Your task to perform on an android device: Search for sony triple a on target, select the first entry, add it to the cart, then select checkout. Image 0: 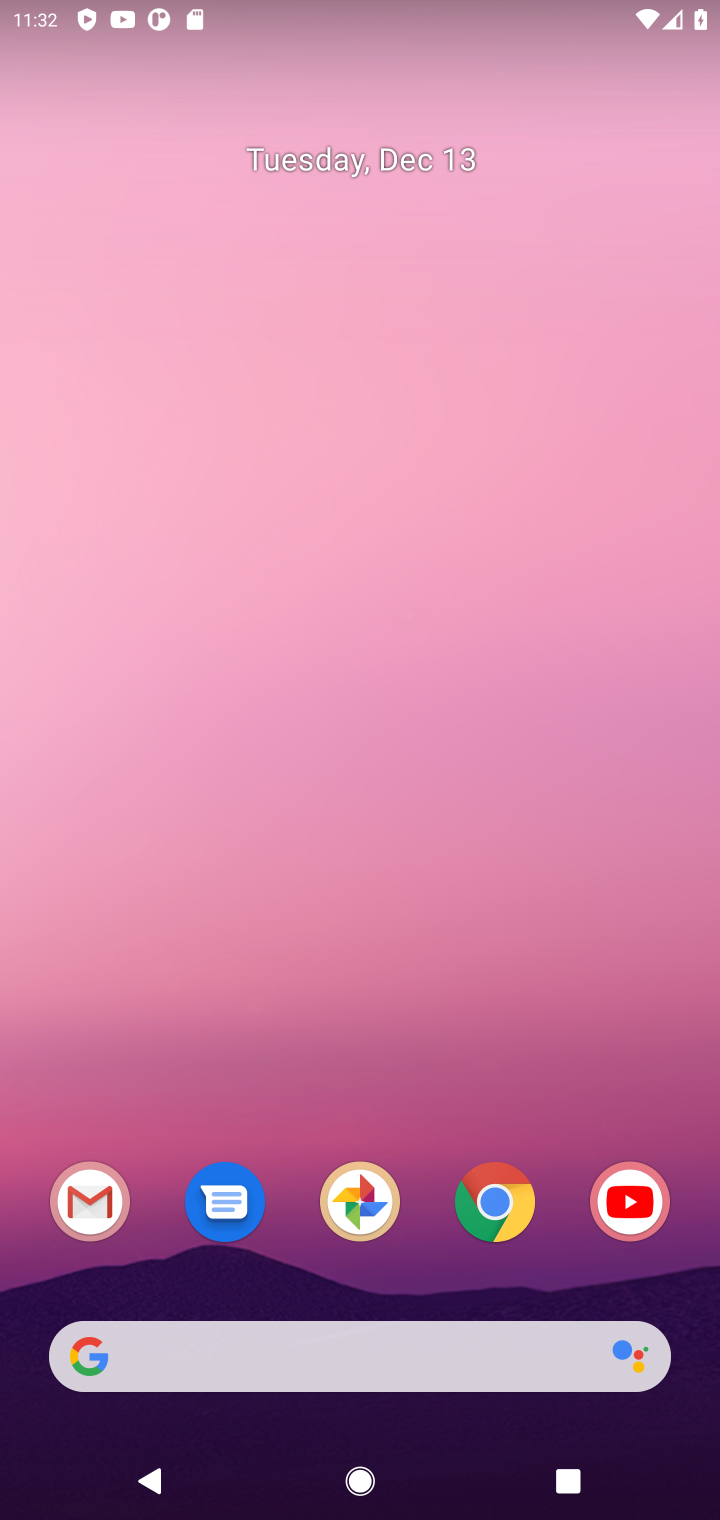
Step 0: click (482, 1178)
Your task to perform on an android device: Search for sony triple a on target, select the first entry, add it to the cart, then select checkout. Image 1: 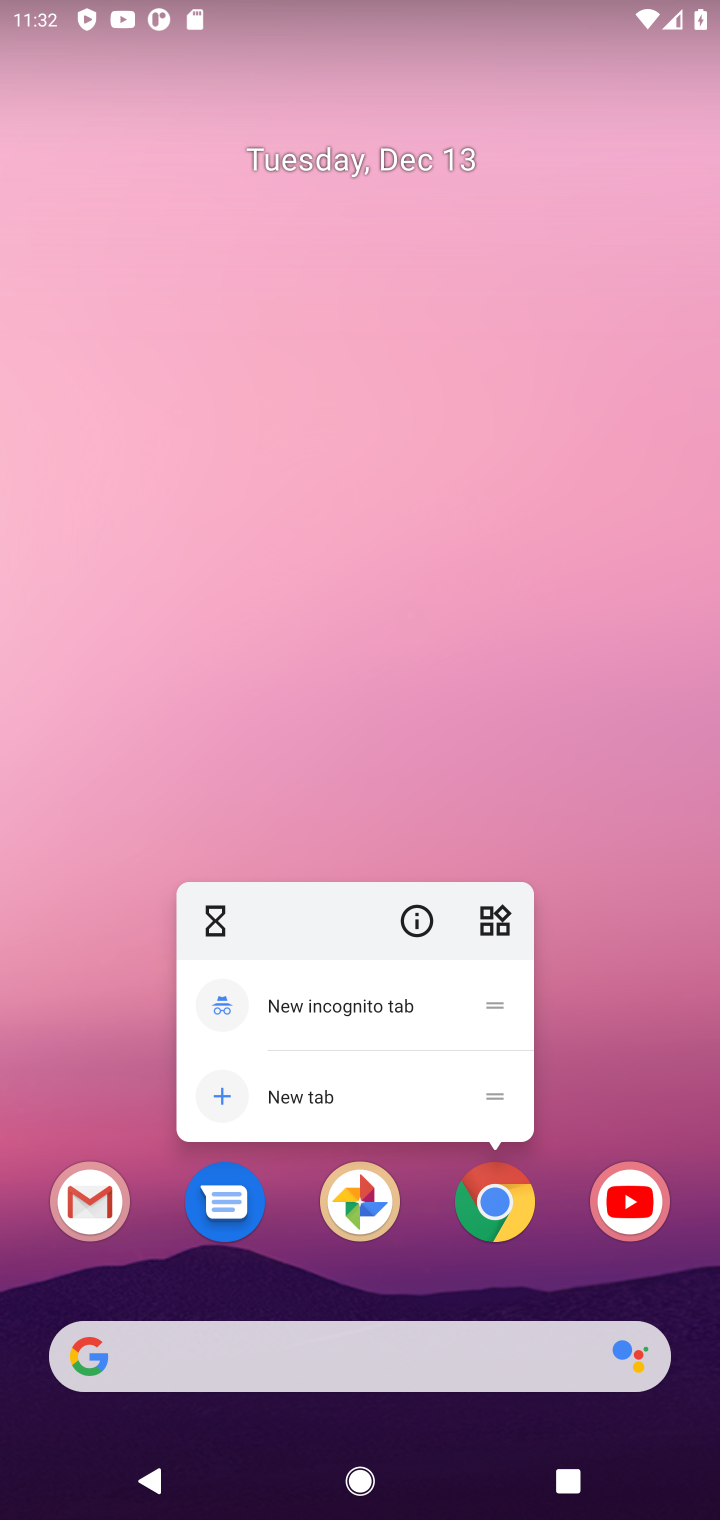
Step 1: click (482, 1182)
Your task to perform on an android device: Search for sony triple a on target, select the first entry, add it to the cart, then select checkout. Image 2: 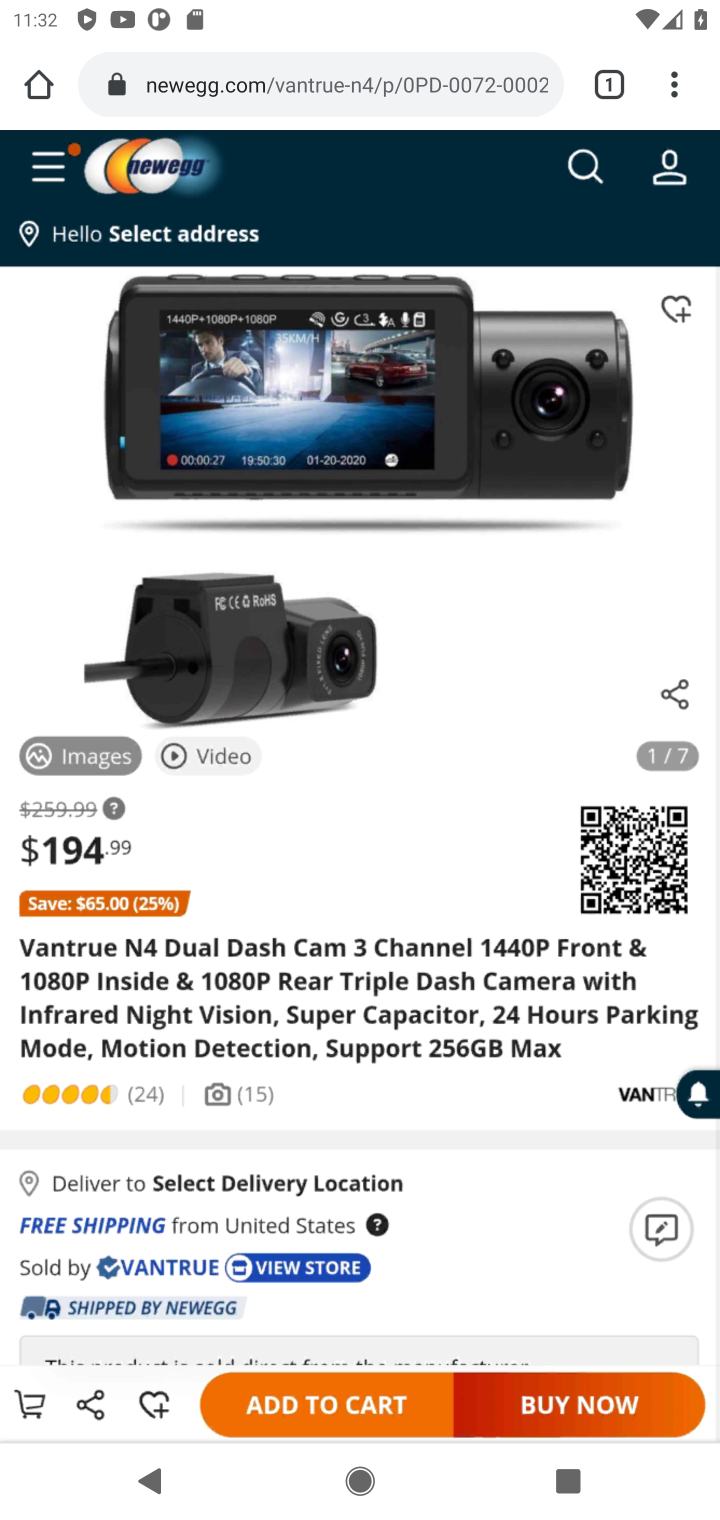
Step 2: click (297, 84)
Your task to perform on an android device: Search for sony triple a on target, select the first entry, add it to the cart, then select checkout. Image 3: 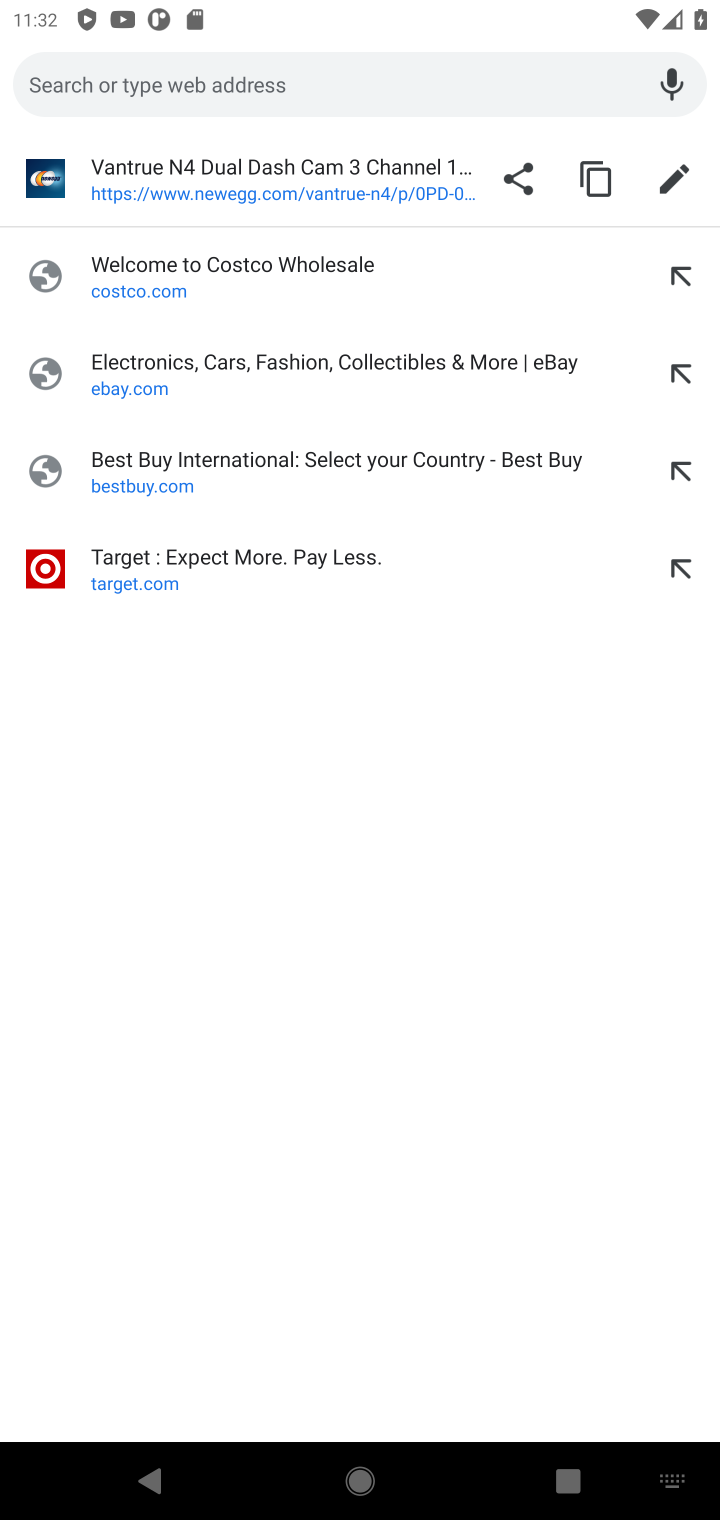
Step 3: click (280, 570)
Your task to perform on an android device: Search for sony triple a on target, select the first entry, add it to the cart, then select checkout. Image 4: 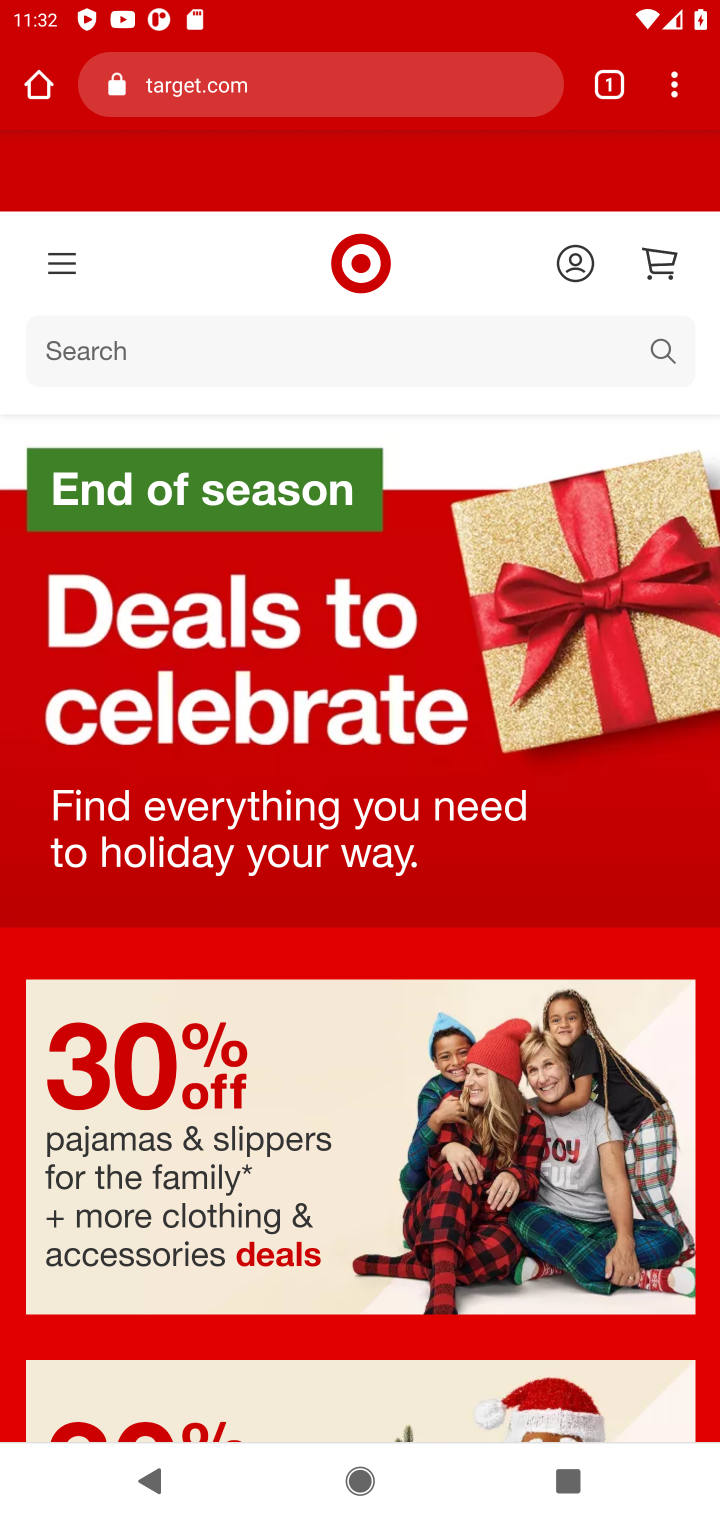
Step 4: click (234, 343)
Your task to perform on an android device: Search for sony triple a on target, select the first entry, add it to the cart, then select checkout. Image 5: 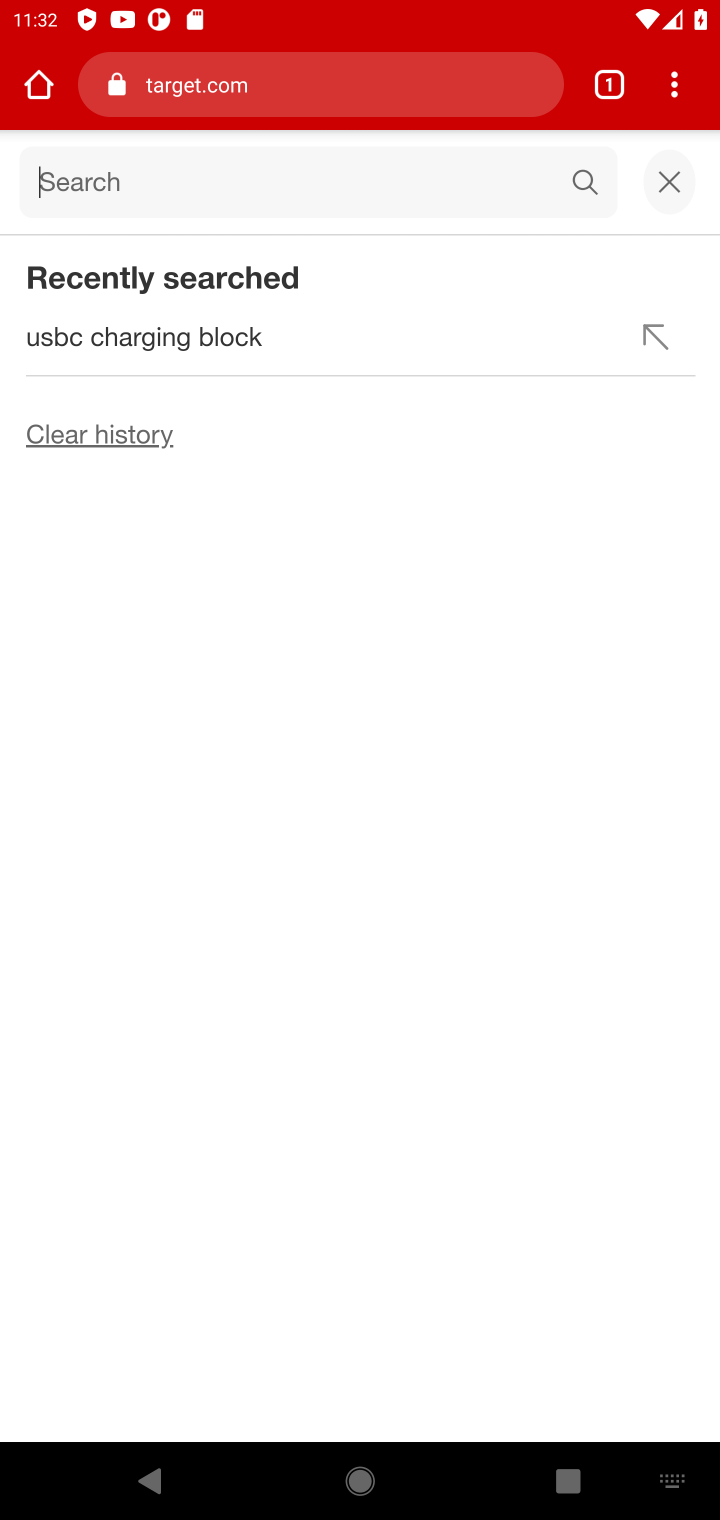
Step 5: type "sony triple a"
Your task to perform on an android device: Search for sony triple a on target, select the first entry, add it to the cart, then select checkout. Image 6: 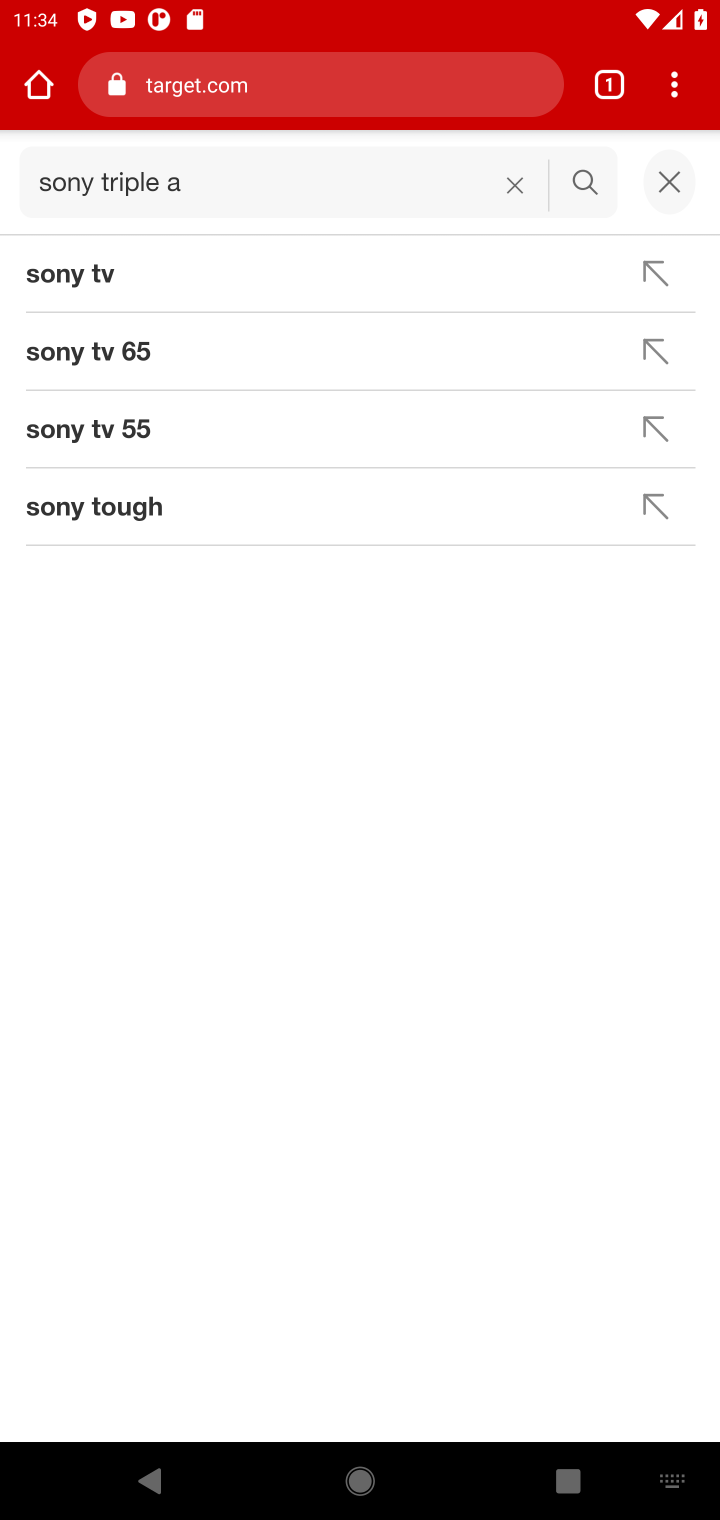
Step 6: click (589, 181)
Your task to perform on an android device: Search for sony triple a on target, select the first entry, add it to the cart, then select checkout. Image 7: 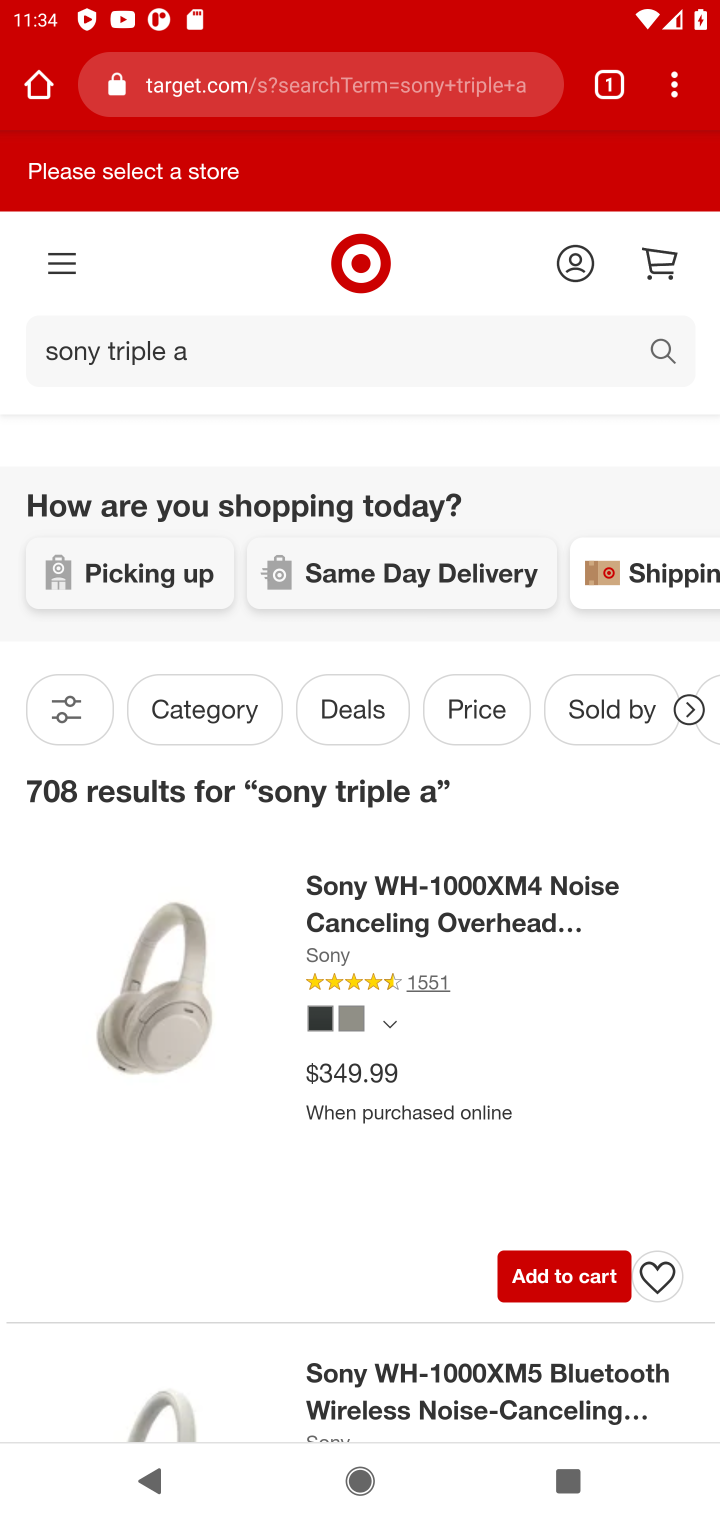
Step 7: click (564, 1273)
Your task to perform on an android device: Search for sony triple a on target, select the first entry, add it to the cart, then select checkout. Image 8: 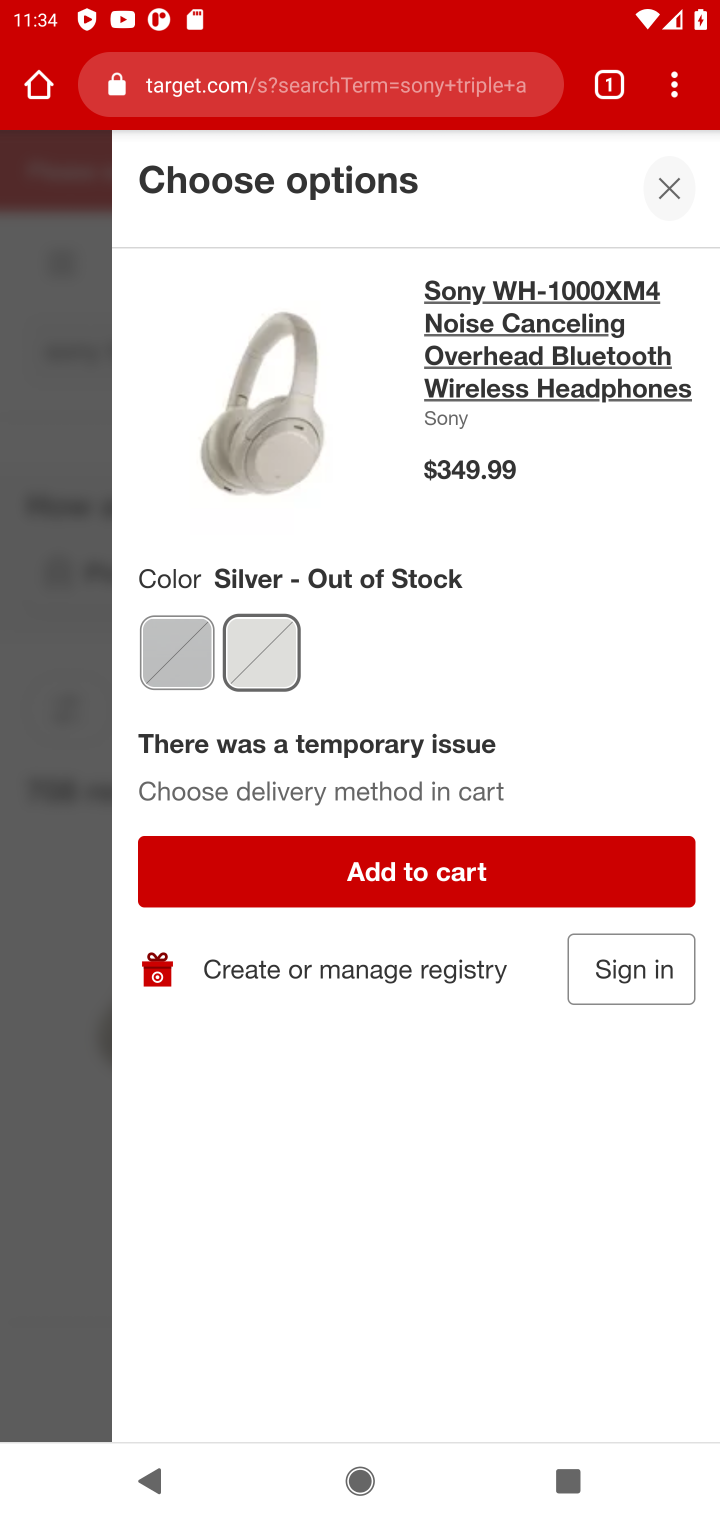
Step 8: click (413, 864)
Your task to perform on an android device: Search for sony triple a on target, select the first entry, add it to the cart, then select checkout. Image 9: 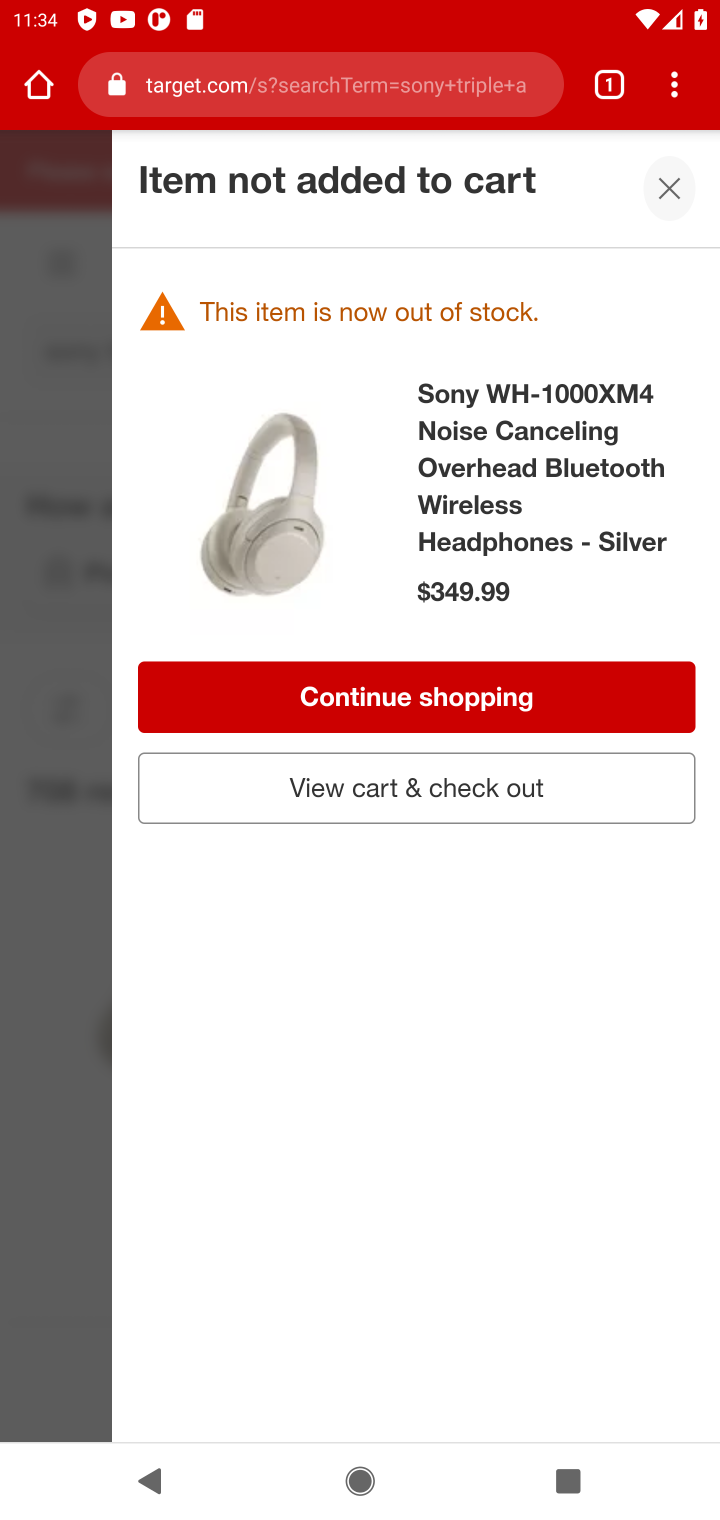
Step 9: click (417, 790)
Your task to perform on an android device: Search for sony triple a on target, select the first entry, add it to the cart, then select checkout. Image 10: 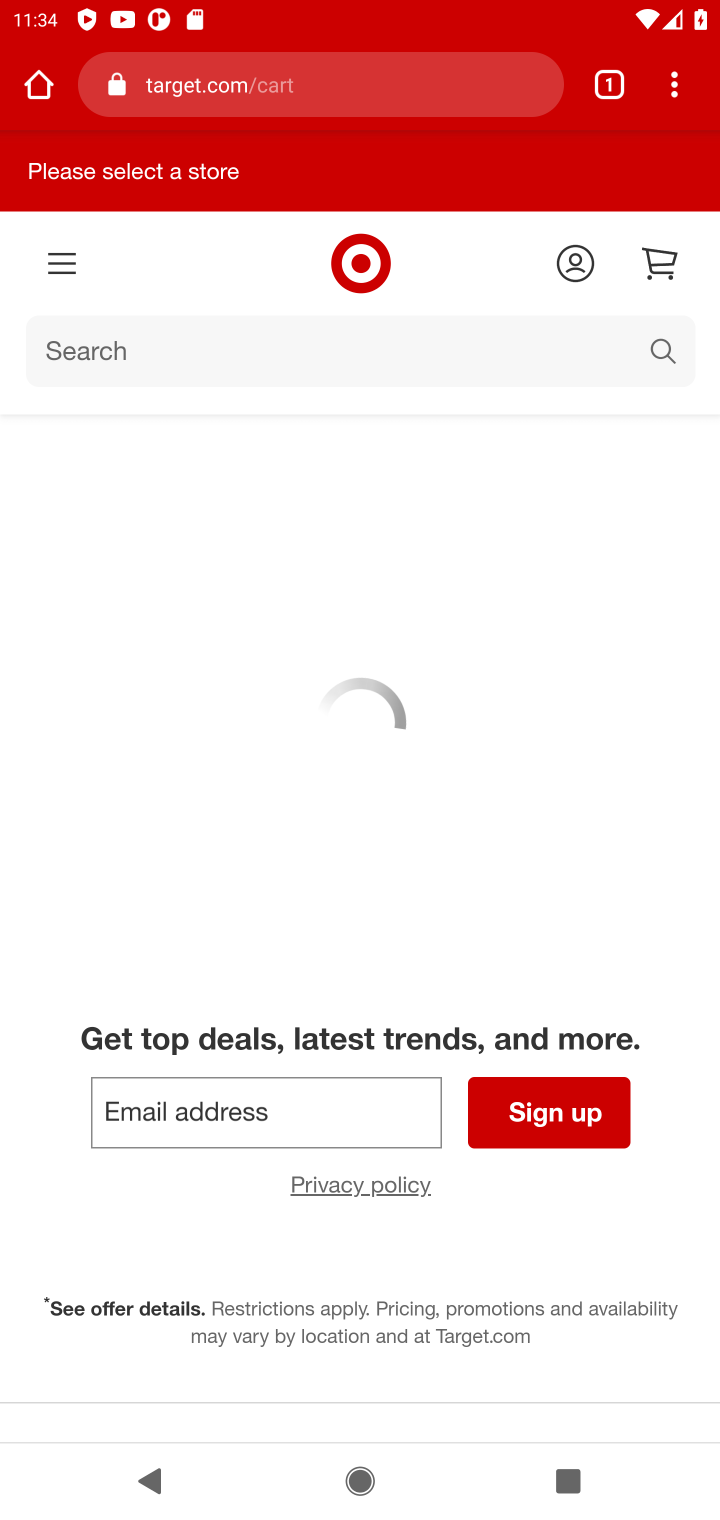
Step 10: task complete